Your task to perform on an android device: turn notification dots on Image 0: 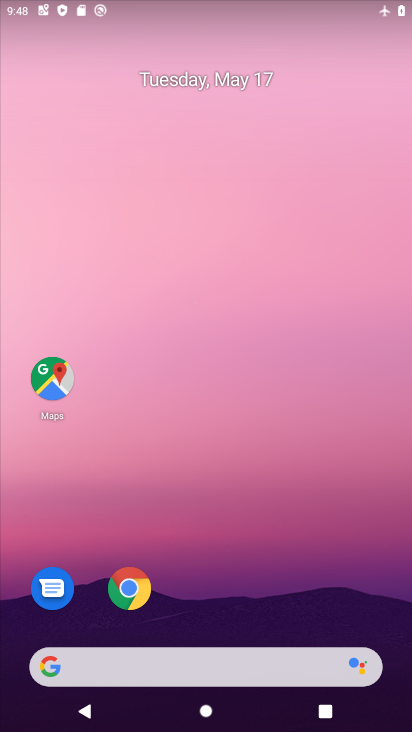
Step 0: drag from (207, 644) to (174, 16)
Your task to perform on an android device: turn notification dots on Image 1: 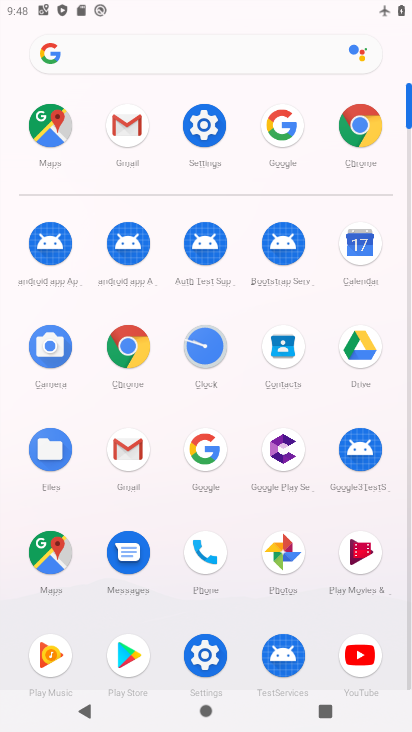
Step 1: click (201, 128)
Your task to perform on an android device: turn notification dots on Image 2: 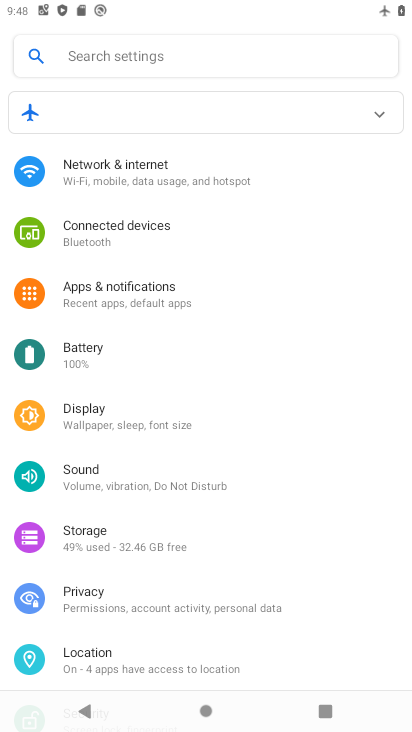
Step 2: click (135, 299)
Your task to perform on an android device: turn notification dots on Image 3: 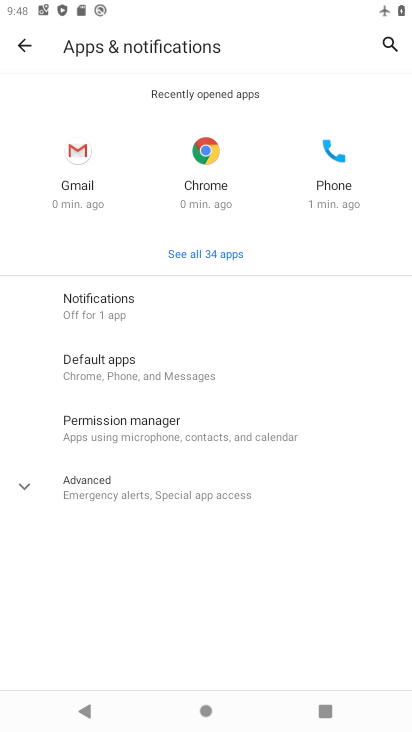
Step 3: click (122, 293)
Your task to perform on an android device: turn notification dots on Image 4: 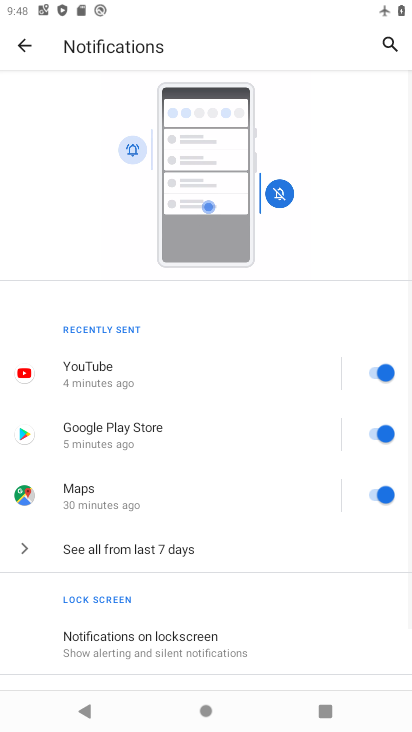
Step 4: drag from (185, 654) to (151, 165)
Your task to perform on an android device: turn notification dots on Image 5: 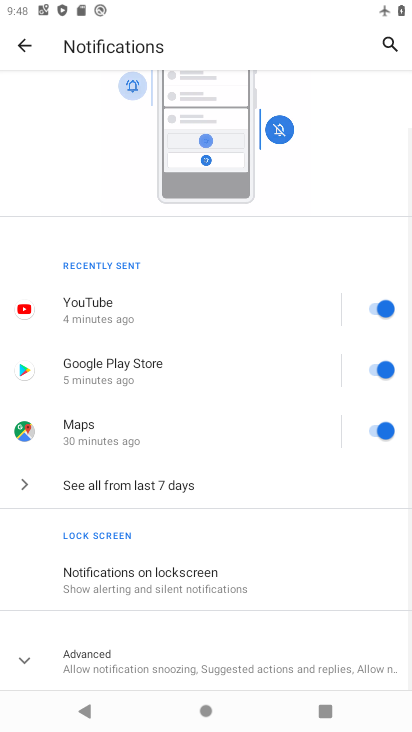
Step 5: click (153, 651)
Your task to perform on an android device: turn notification dots on Image 6: 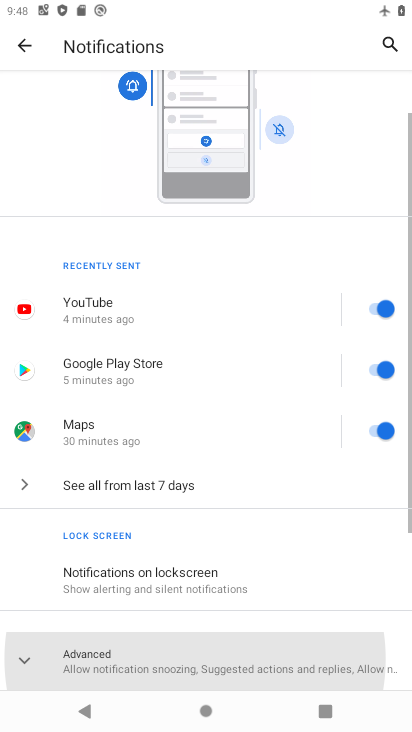
Step 6: drag from (153, 651) to (133, 163)
Your task to perform on an android device: turn notification dots on Image 7: 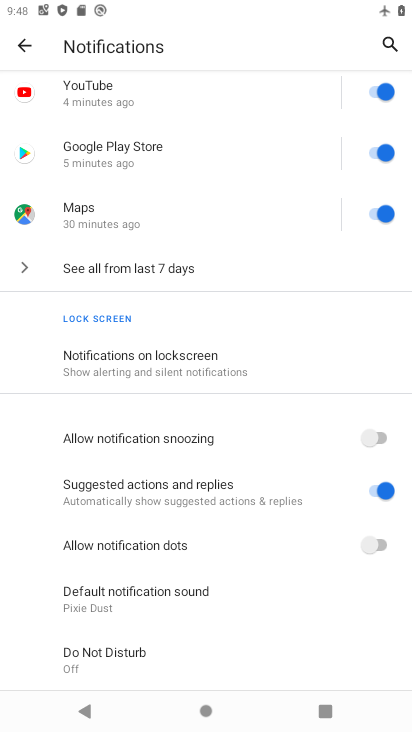
Step 7: click (368, 552)
Your task to perform on an android device: turn notification dots on Image 8: 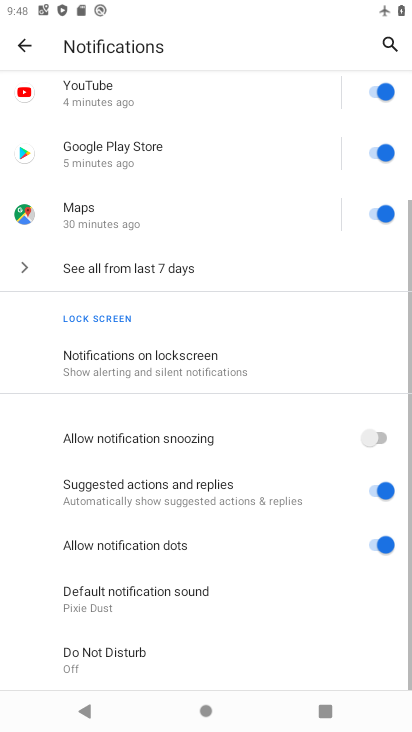
Step 8: task complete